Your task to perform on an android device: set an alarm Image 0: 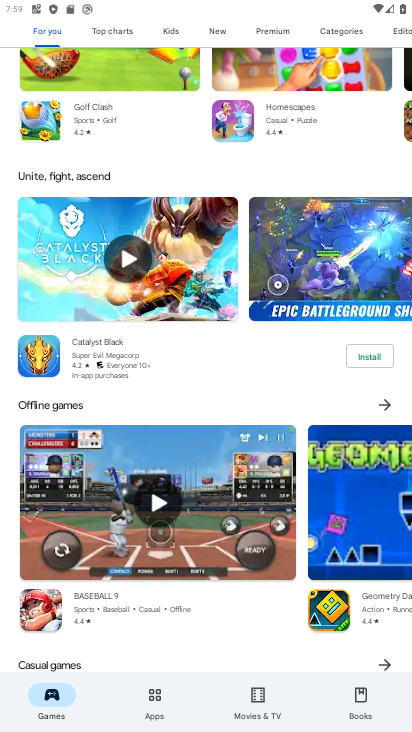
Step 0: press home button
Your task to perform on an android device: set an alarm Image 1: 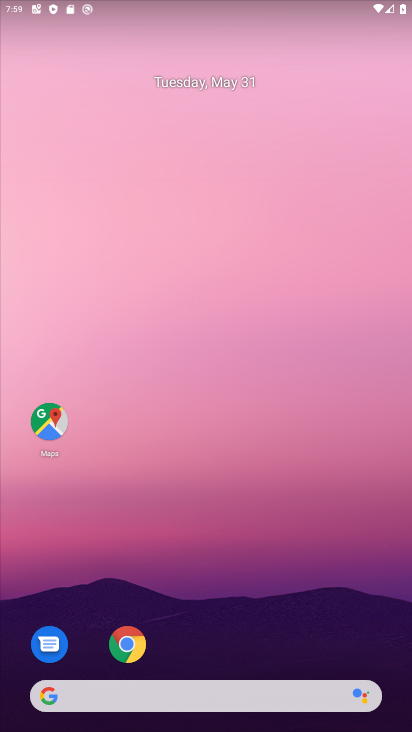
Step 1: drag from (106, 546) to (70, 5)
Your task to perform on an android device: set an alarm Image 2: 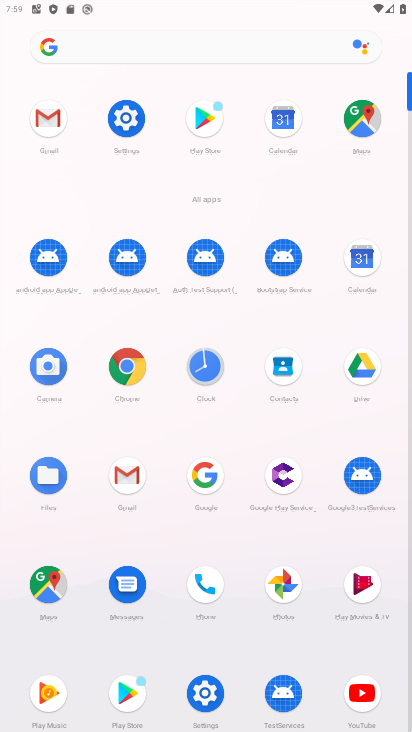
Step 2: click (210, 354)
Your task to perform on an android device: set an alarm Image 3: 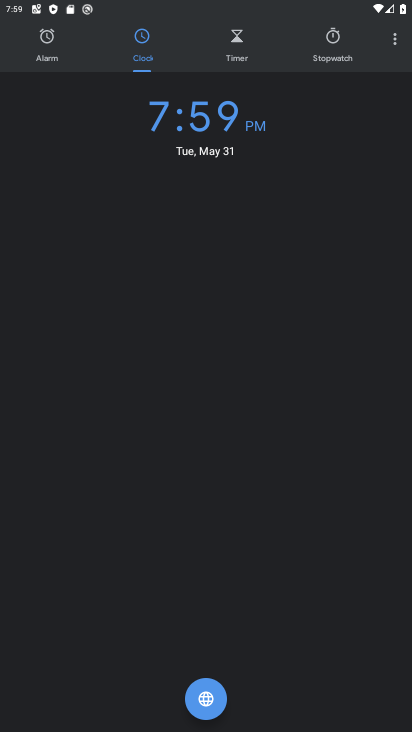
Step 3: click (53, 45)
Your task to perform on an android device: set an alarm Image 4: 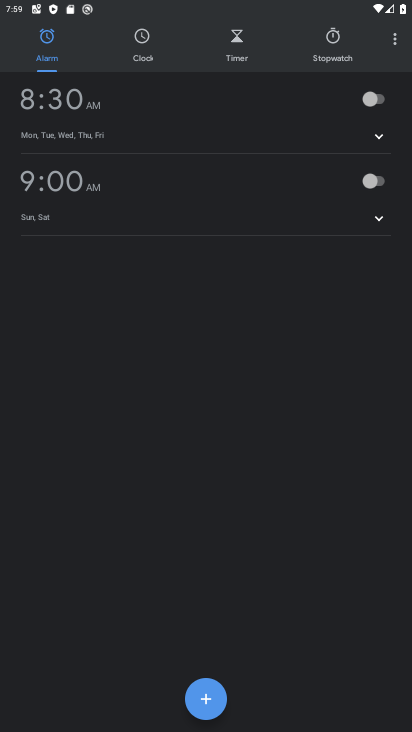
Step 4: click (196, 701)
Your task to perform on an android device: set an alarm Image 5: 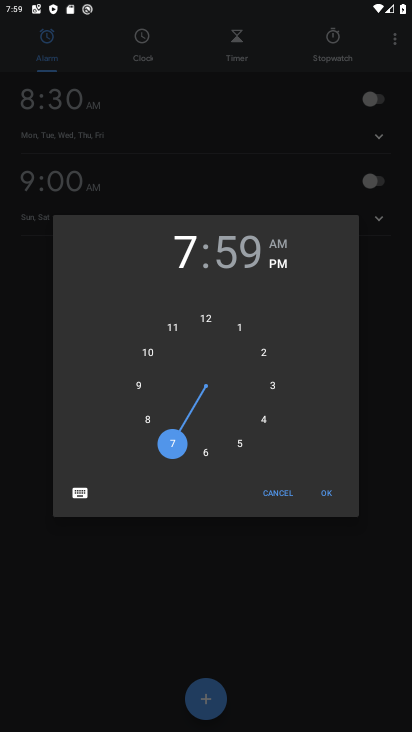
Step 5: click (333, 497)
Your task to perform on an android device: set an alarm Image 6: 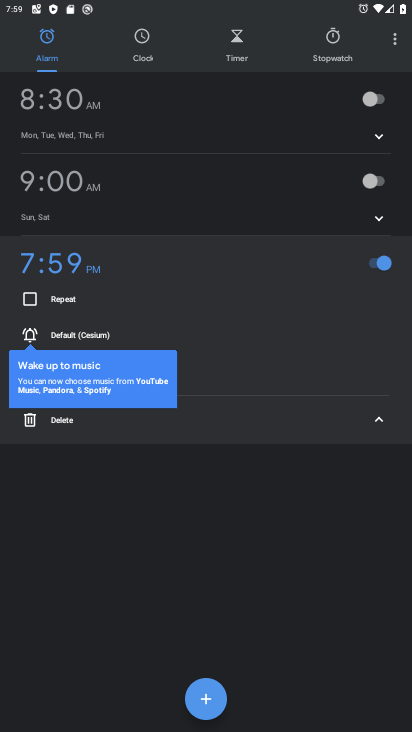
Step 6: task complete